Your task to perform on an android device: visit the assistant section in the google photos Image 0: 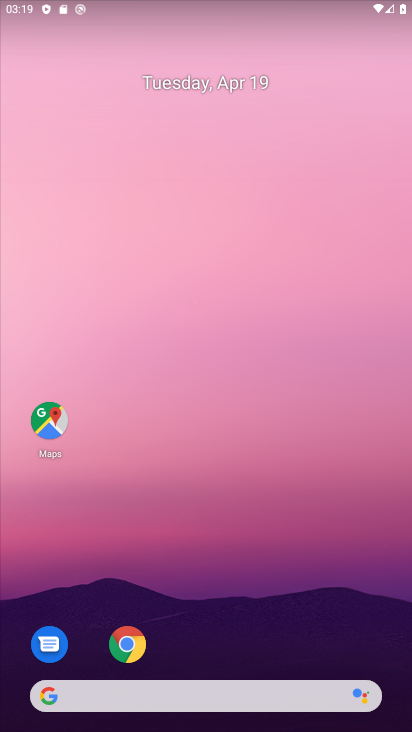
Step 0: drag from (378, 641) to (277, 147)
Your task to perform on an android device: visit the assistant section in the google photos Image 1: 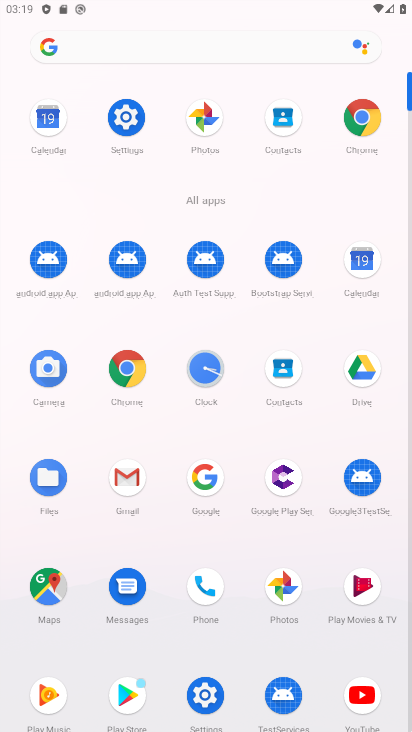
Step 1: click (279, 588)
Your task to perform on an android device: visit the assistant section in the google photos Image 2: 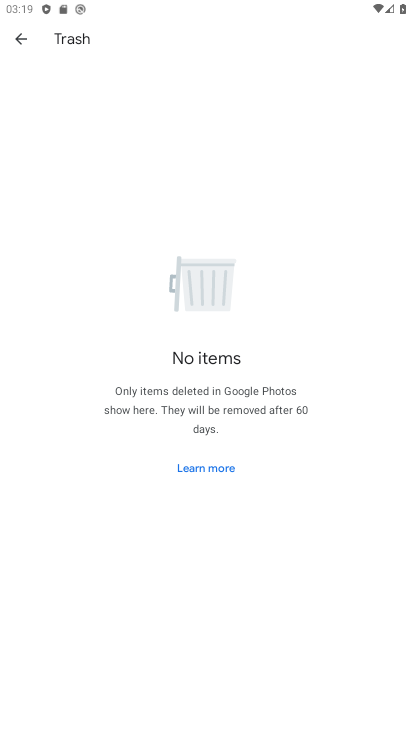
Step 2: press back button
Your task to perform on an android device: visit the assistant section in the google photos Image 3: 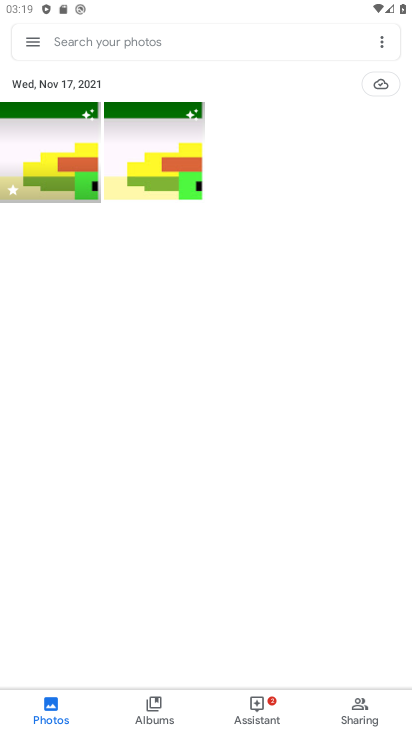
Step 3: click (254, 709)
Your task to perform on an android device: visit the assistant section in the google photos Image 4: 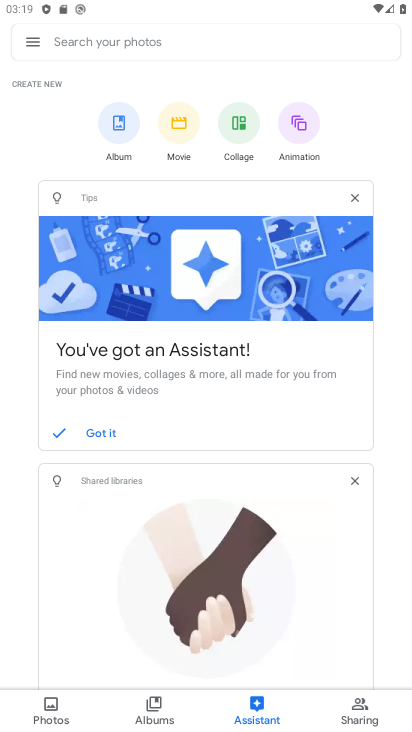
Step 4: task complete